Your task to perform on an android device: toggle wifi Image 0: 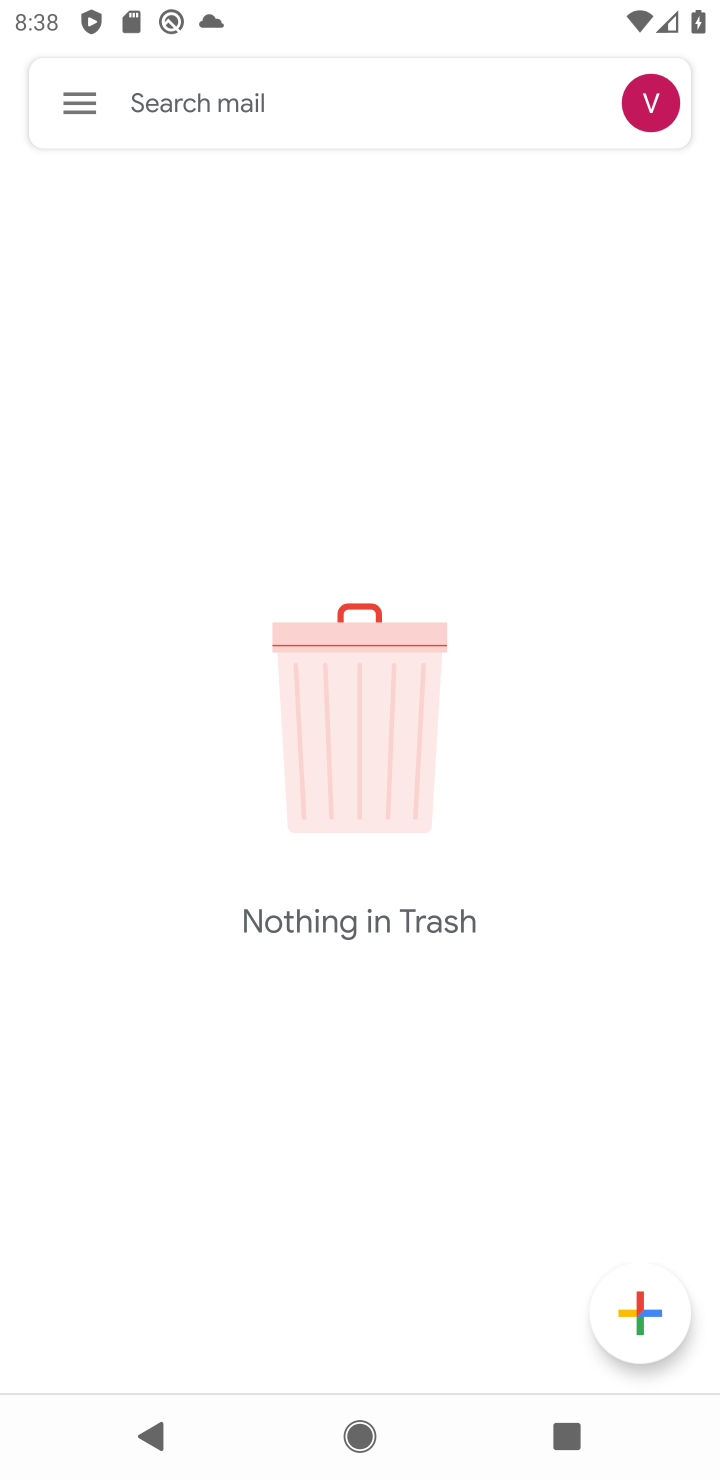
Step 0: press home button
Your task to perform on an android device: toggle wifi Image 1: 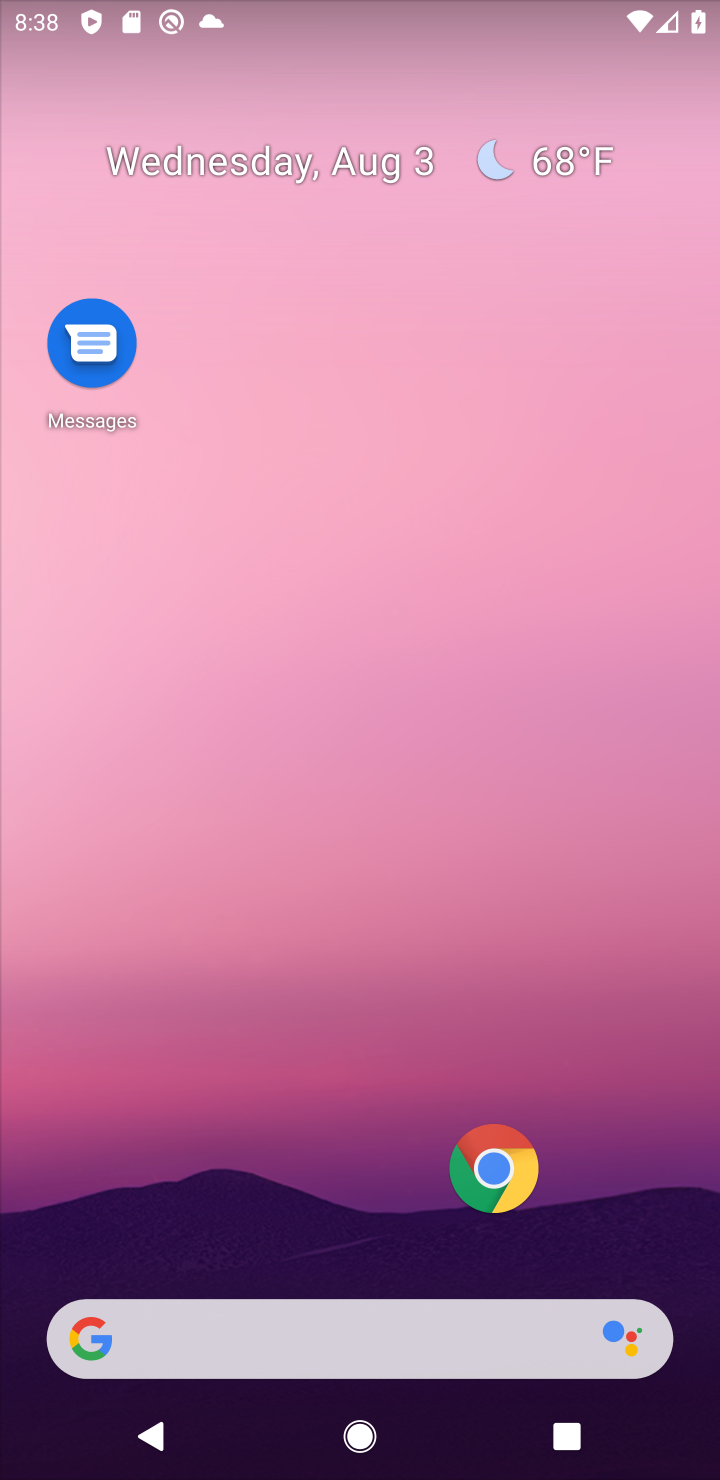
Step 1: drag from (356, 1180) to (332, 295)
Your task to perform on an android device: toggle wifi Image 2: 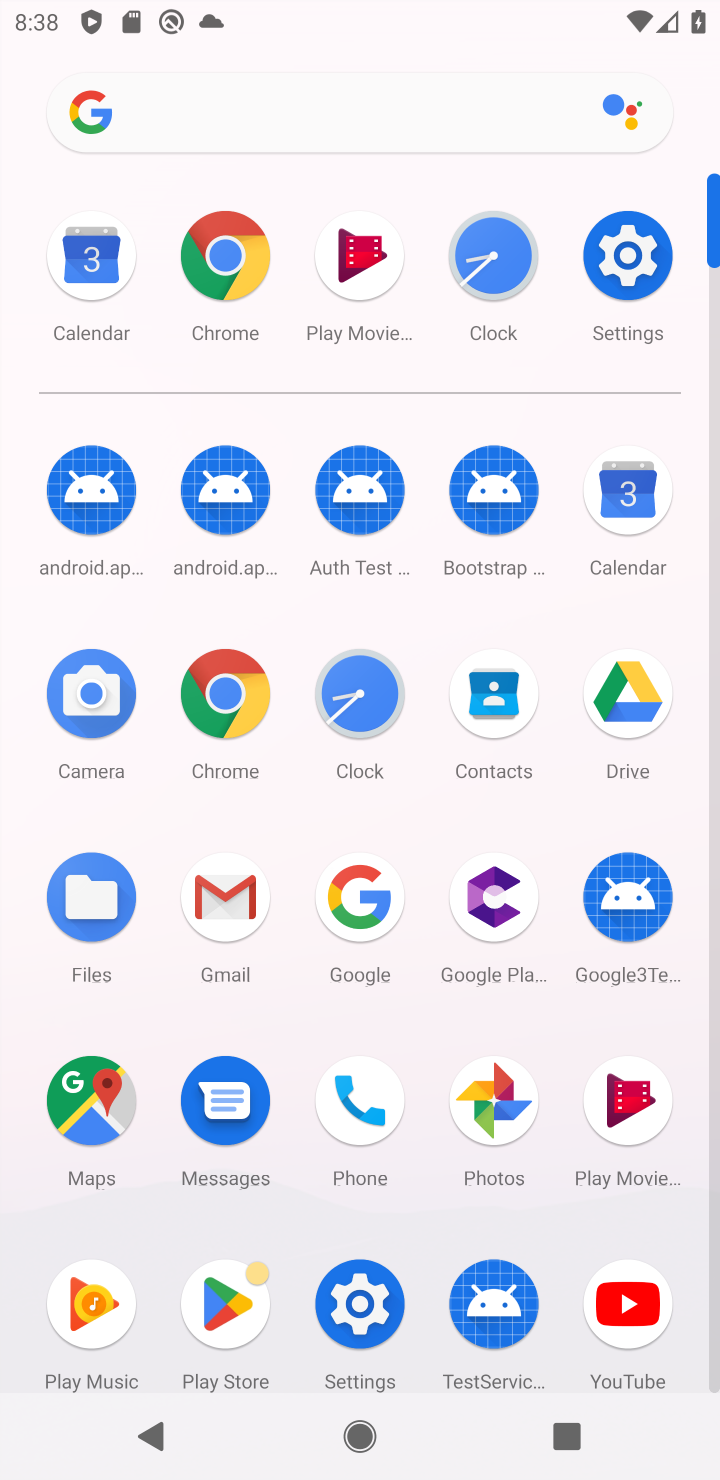
Step 2: click (650, 261)
Your task to perform on an android device: toggle wifi Image 3: 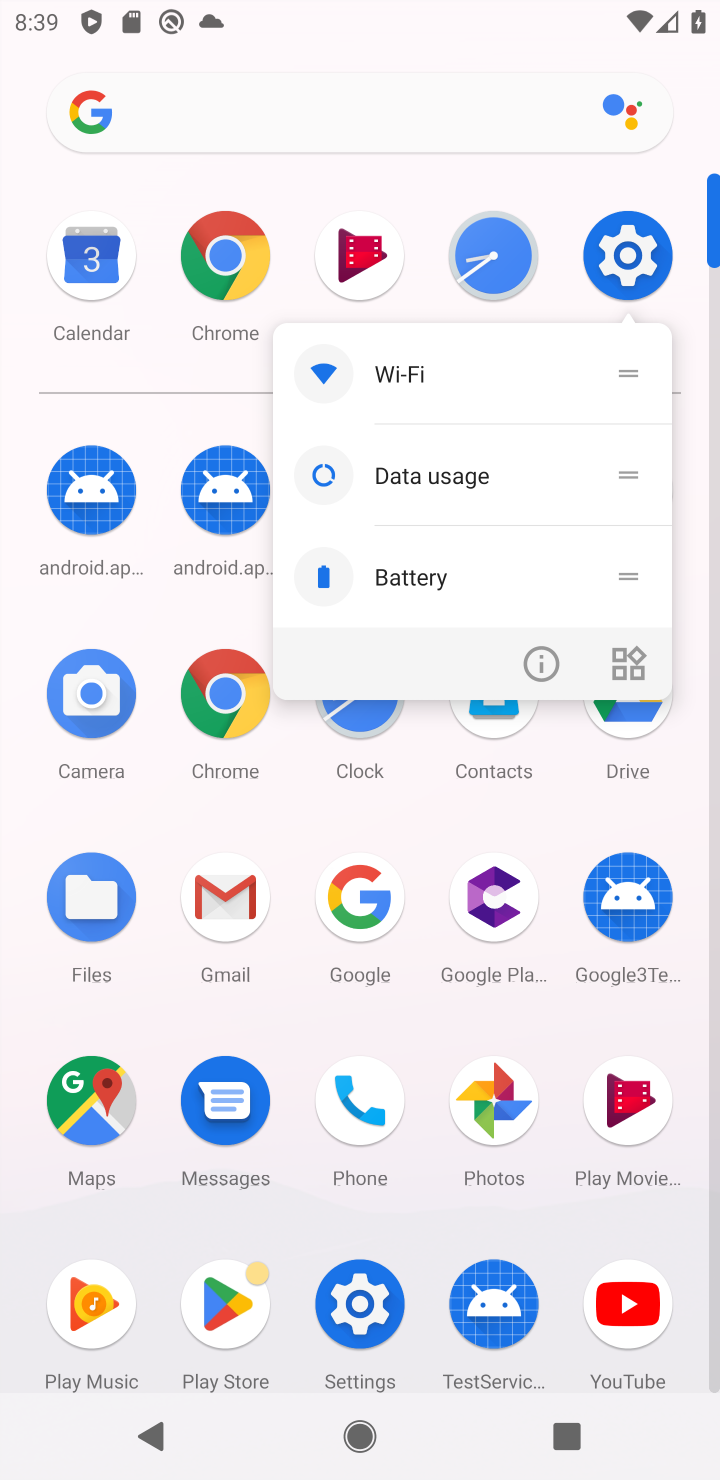
Step 3: click (623, 287)
Your task to perform on an android device: toggle wifi Image 4: 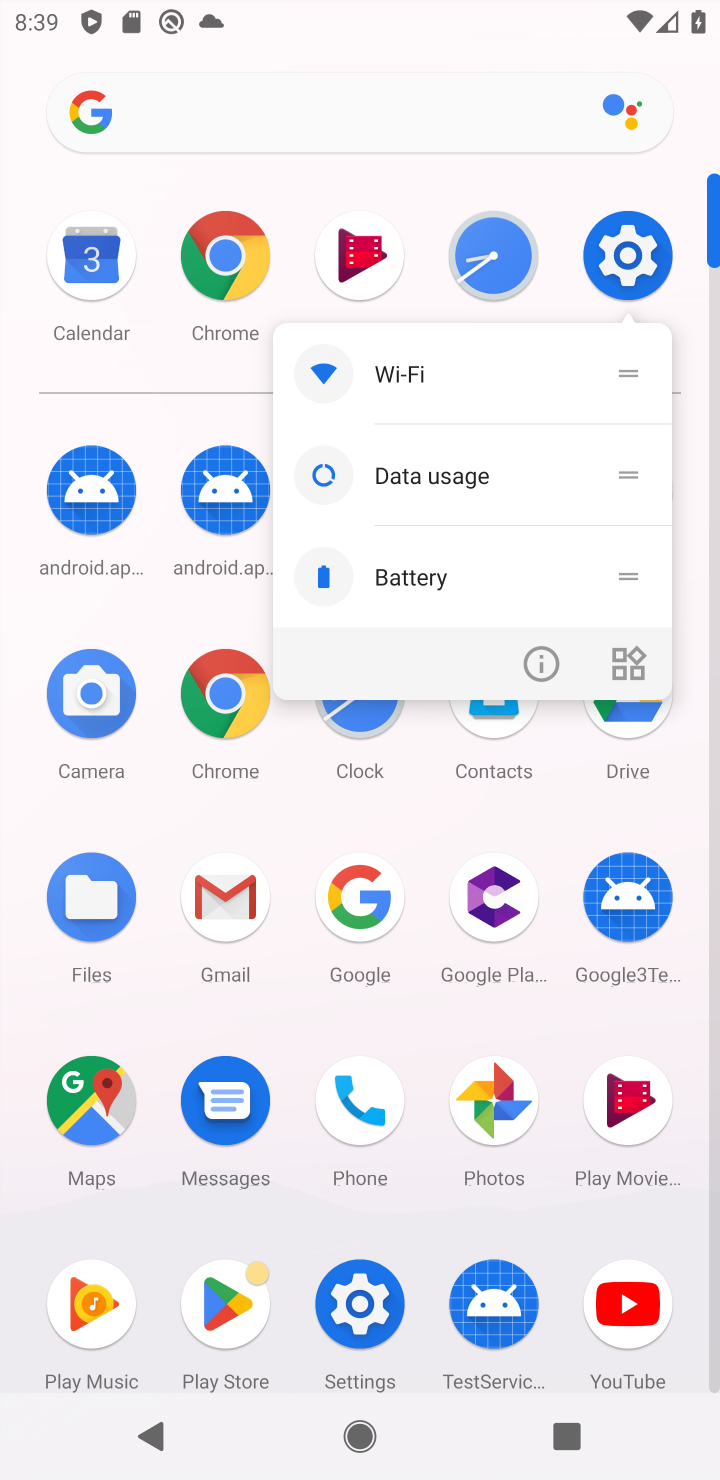
Step 4: click (623, 271)
Your task to perform on an android device: toggle wifi Image 5: 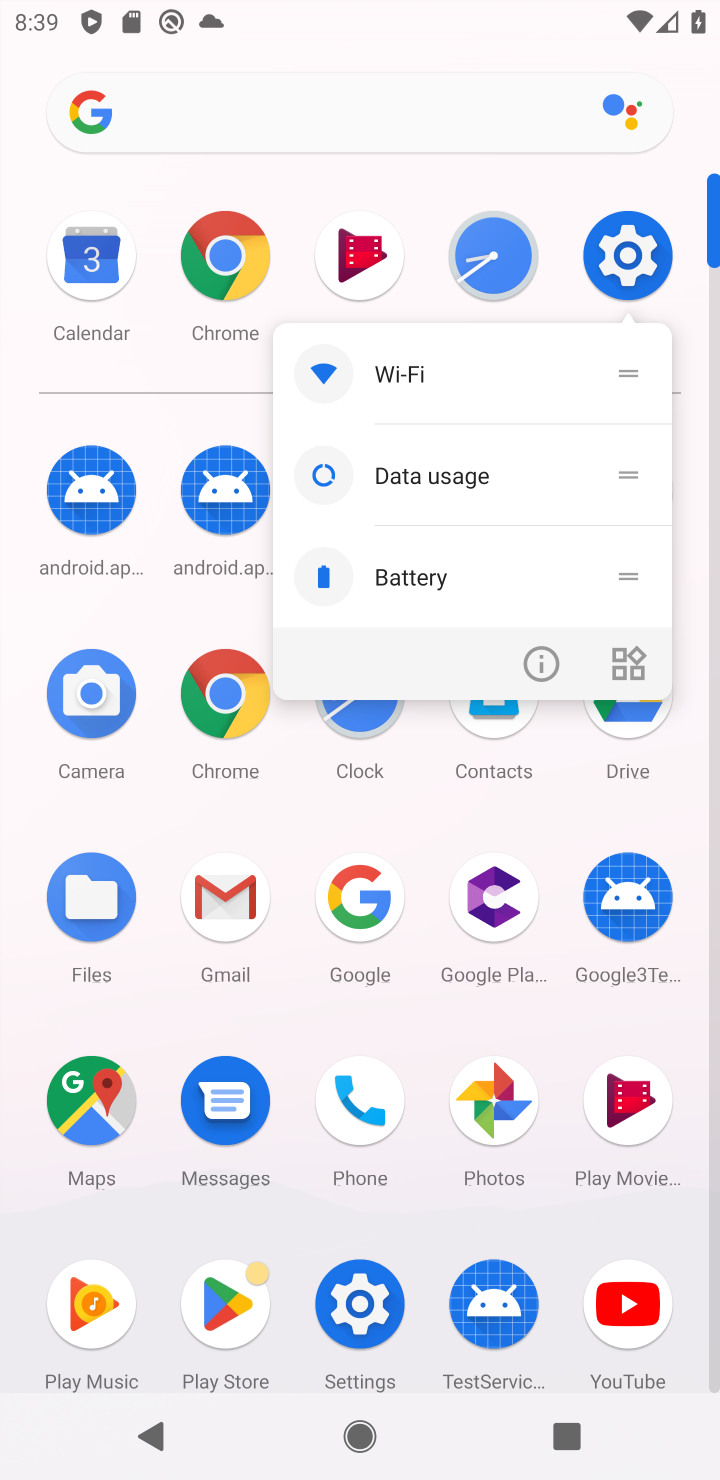
Step 5: click (627, 255)
Your task to perform on an android device: toggle wifi Image 6: 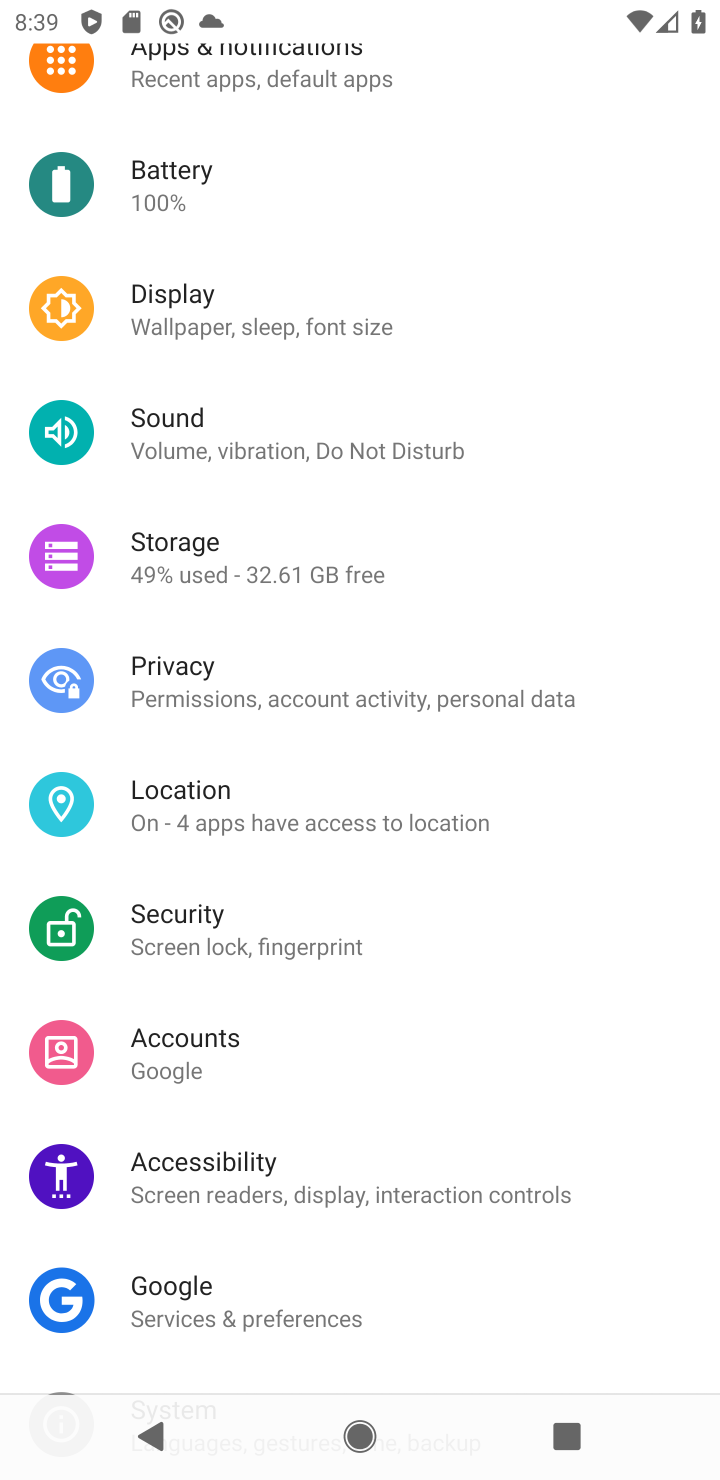
Step 6: drag from (169, 207) to (213, 1158)
Your task to perform on an android device: toggle wifi Image 7: 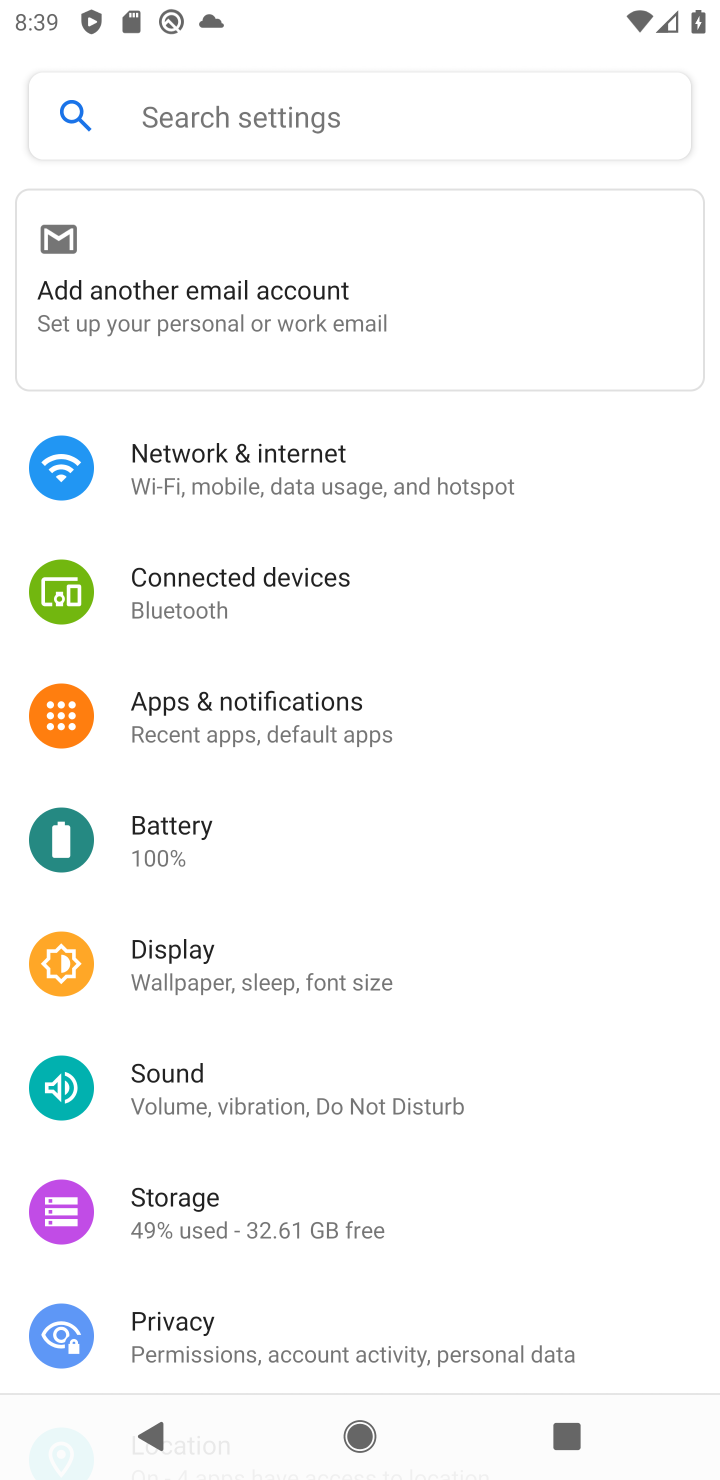
Step 7: click (220, 466)
Your task to perform on an android device: toggle wifi Image 8: 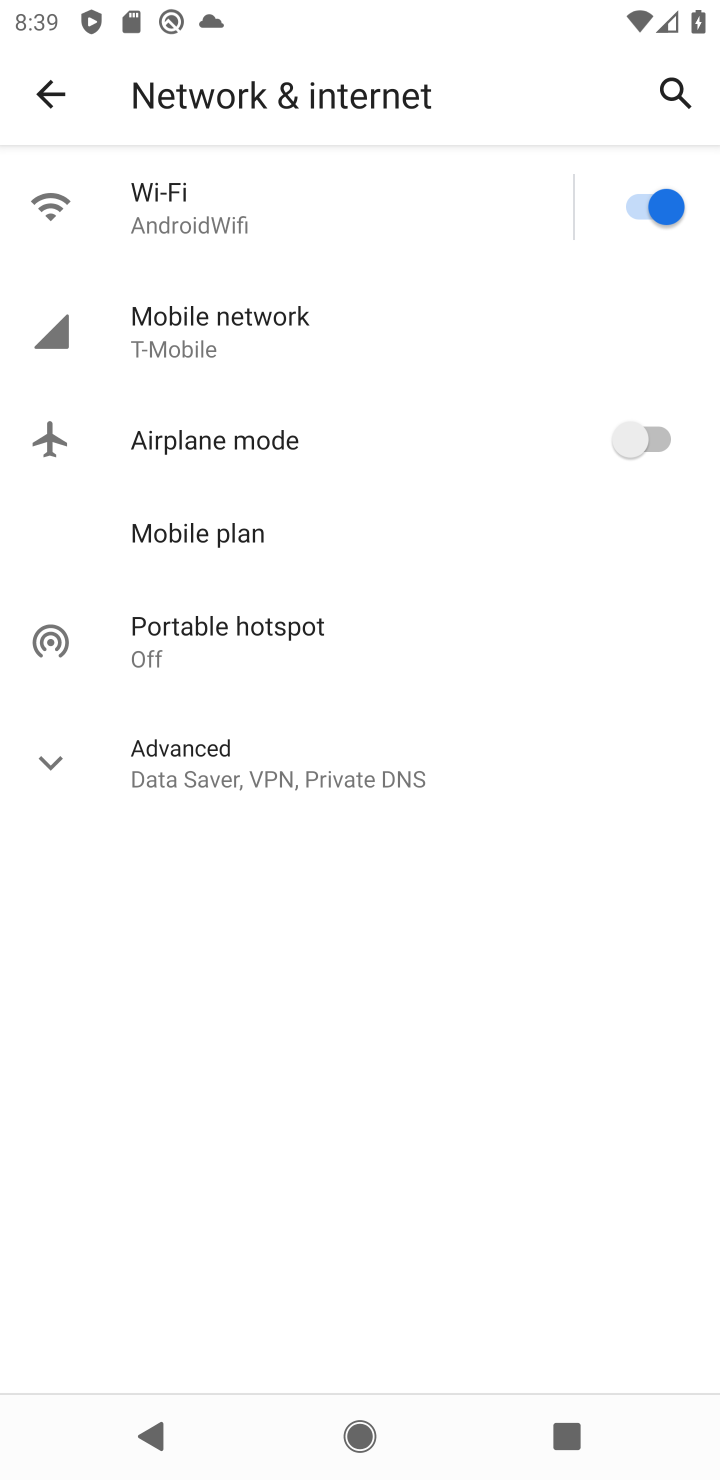
Step 8: click (633, 219)
Your task to perform on an android device: toggle wifi Image 9: 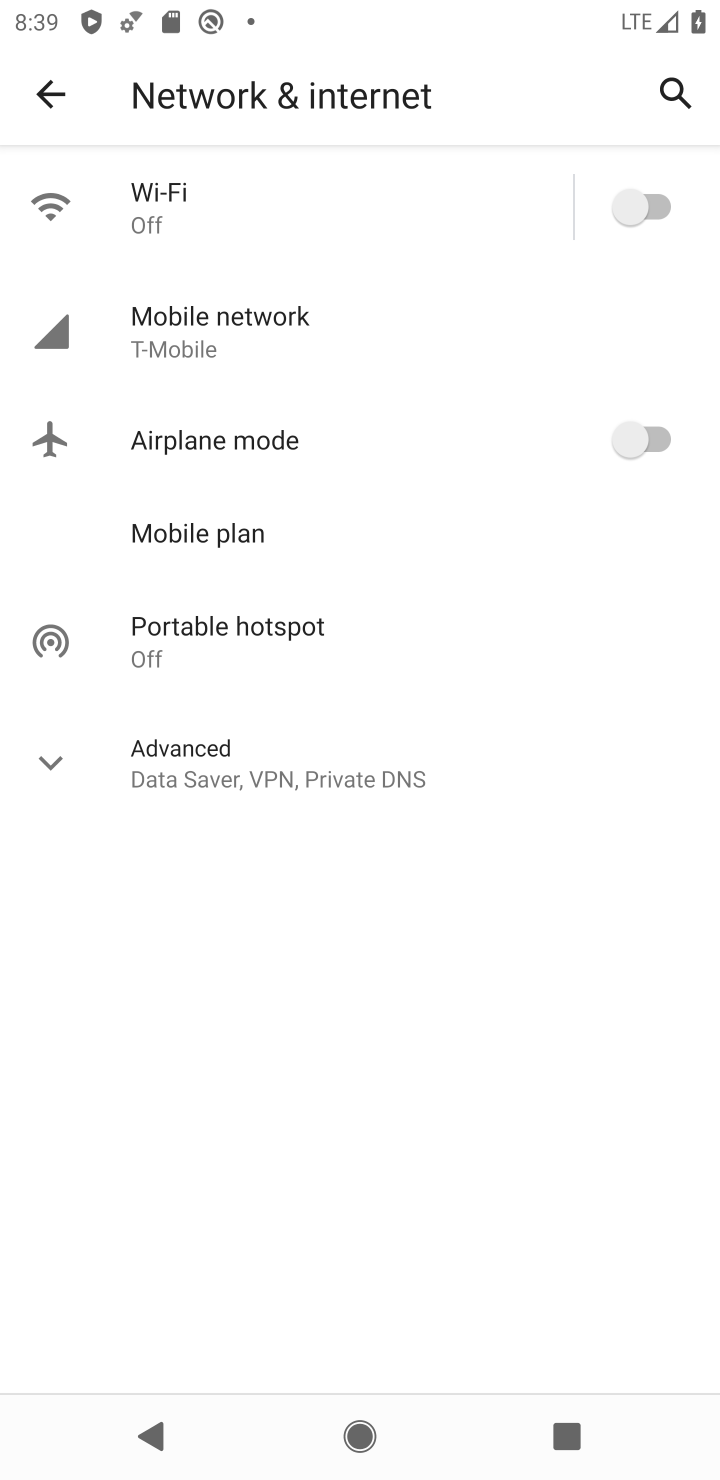
Step 9: task complete